Your task to perform on an android device: set the stopwatch Image 0: 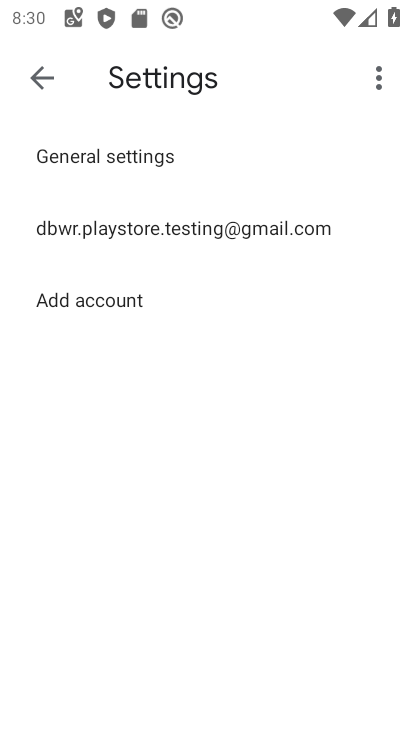
Step 0: press home button
Your task to perform on an android device: set the stopwatch Image 1: 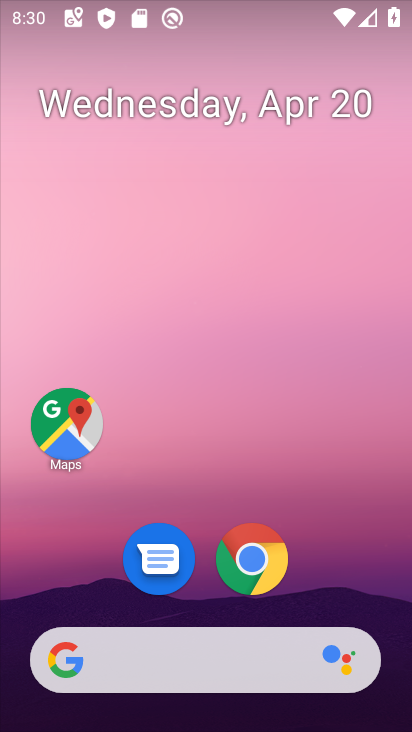
Step 1: drag from (366, 598) to (291, 250)
Your task to perform on an android device: set the stopwatch Image 2: 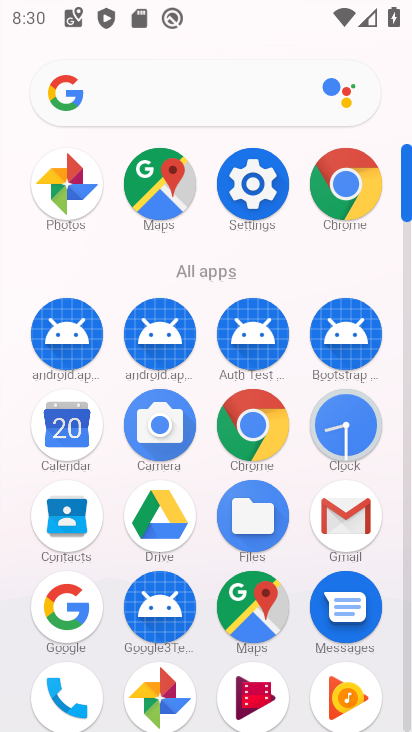
Step 2: click (341, 418)
Your task to perform on an android device: set the stopwatch Image 3: 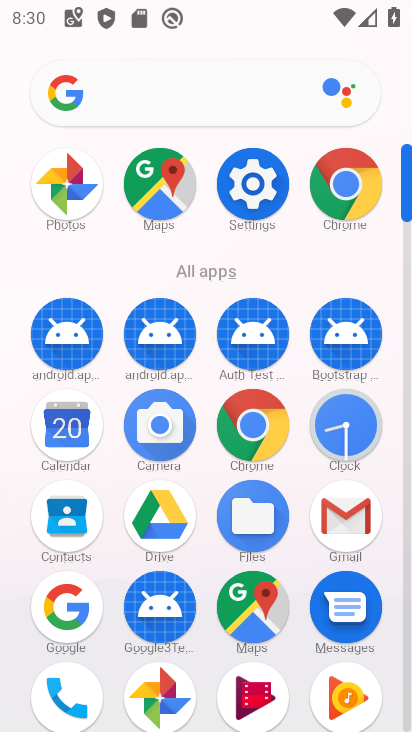
Step 3: click (341, 418)
Your task to perform on an android device: set the stopwatch Image 4: 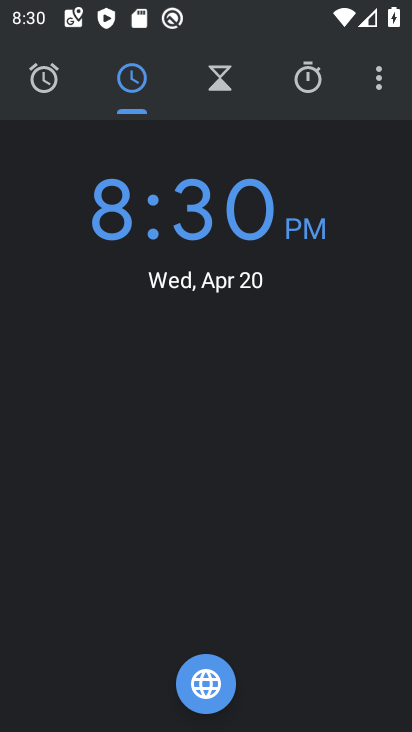
Step 4: click (302, 73)
Your task to perform on an android device: set the stopwatch Image 5: 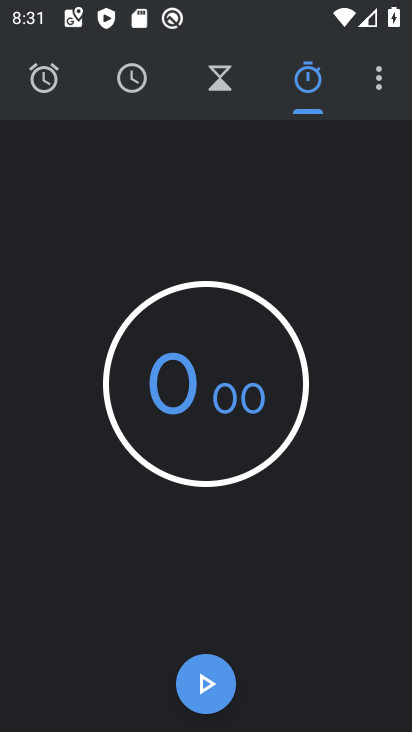
Step 5: task complete